Your task to perform on an android device: check google app version Image 0: 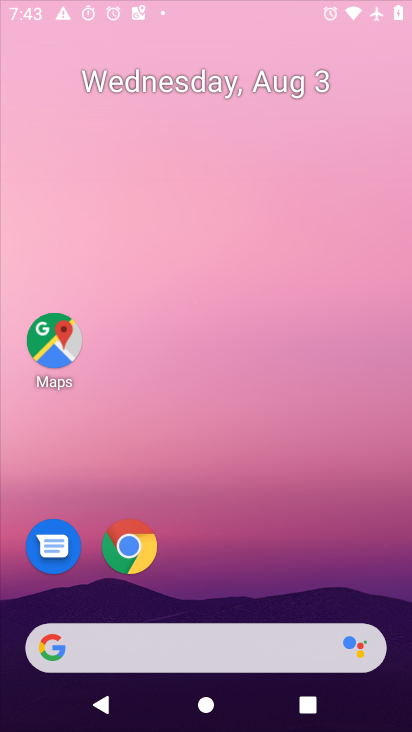
Step 0: press home button
Your task to perform on an android device: check google app version Image 1: 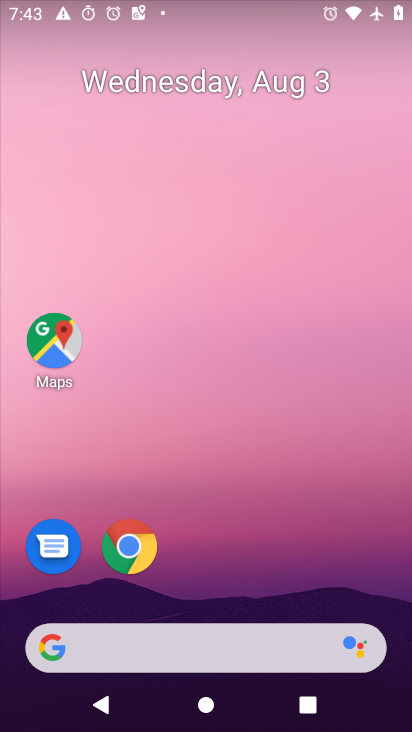
Step 1: drag from (250, 612) to (248, 148)
Your task to perform on an android device: check google app version Image 2: 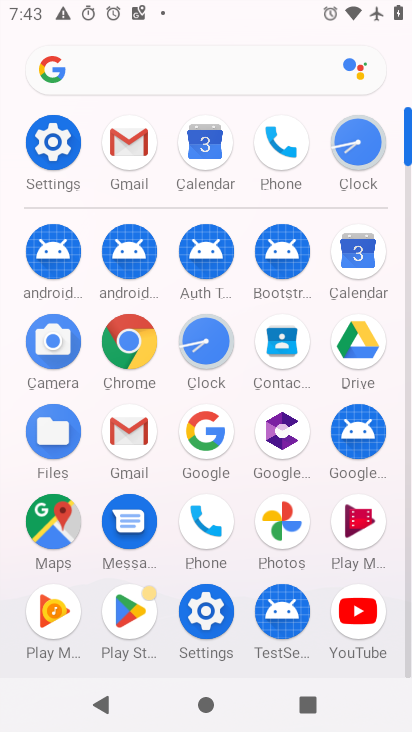
Step 2: click (201, 436)
Your task to perform on an android device: check google app version Image 3: 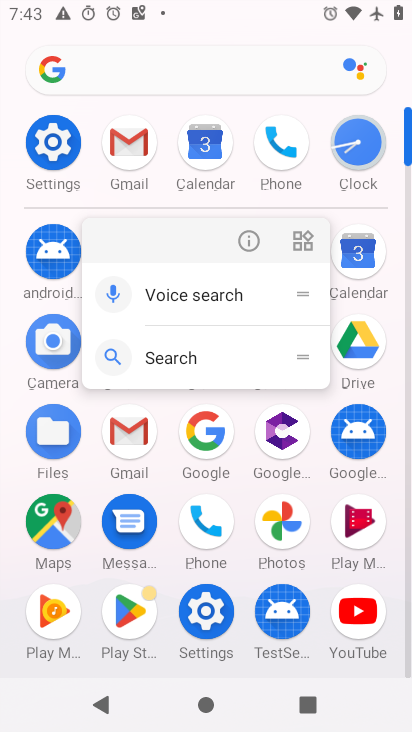
Step 3: click (251, 241)
Your task to perform on an android device: check google app version Image 4: 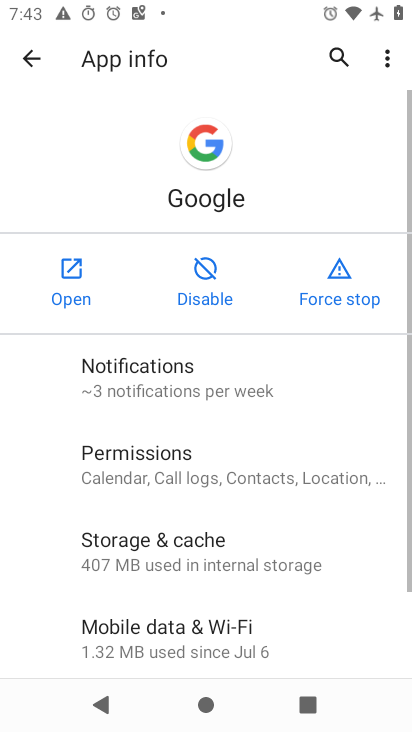
Step 4: drag from (355, 618) to (305, 28)
Your task to perform on an android device: check google app version Image 5: 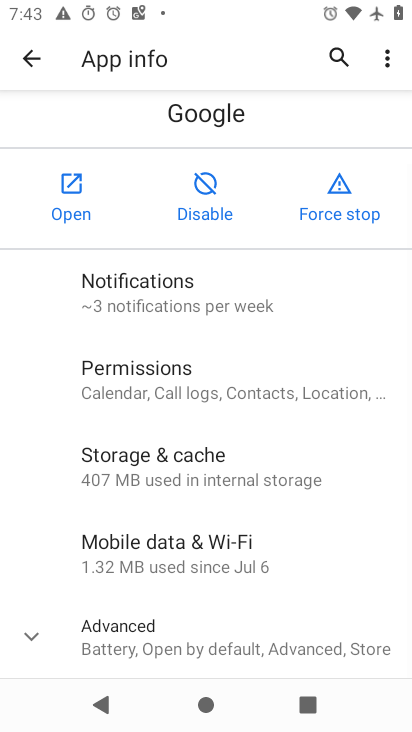
Step 5: click (105, 648)
Your task to perform on an android device: check google app version Image 6: 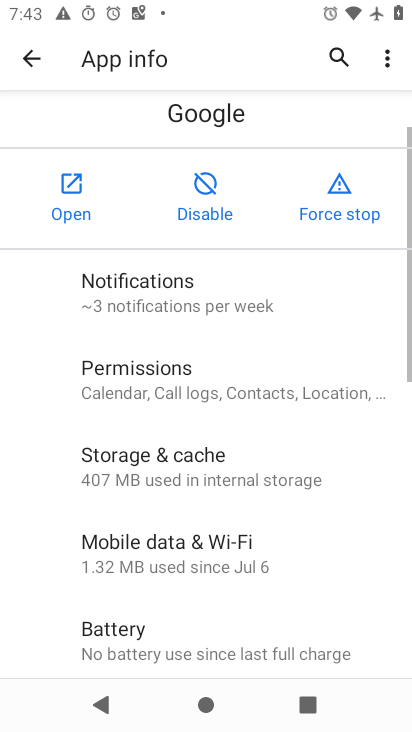
Step 6: task complete